Your task to perform on an android device: turn on notifications settings in the gmail app Image 0: 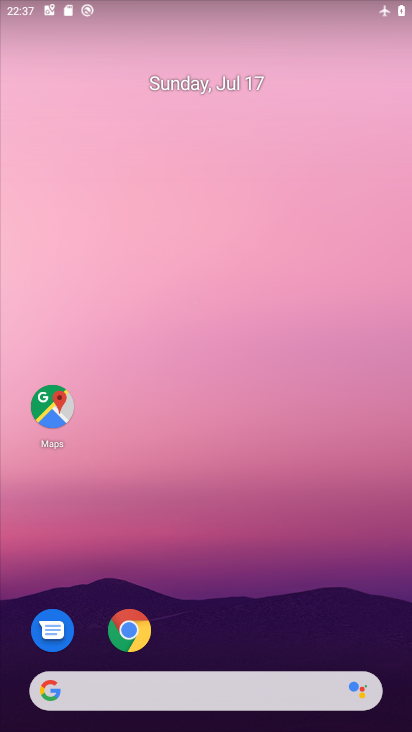
Step 0: drag from (246, 660) to (248, 227)
Your task to perform on an android device: turn on notifications settings in the gmail app Image 1: 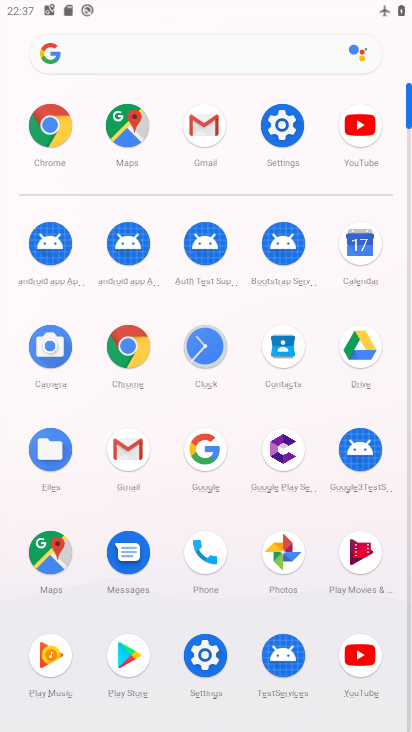
Step 1: click (130, 458)
Your task to perform on an android device: turn on notifications settings in the gmail app Image 2: 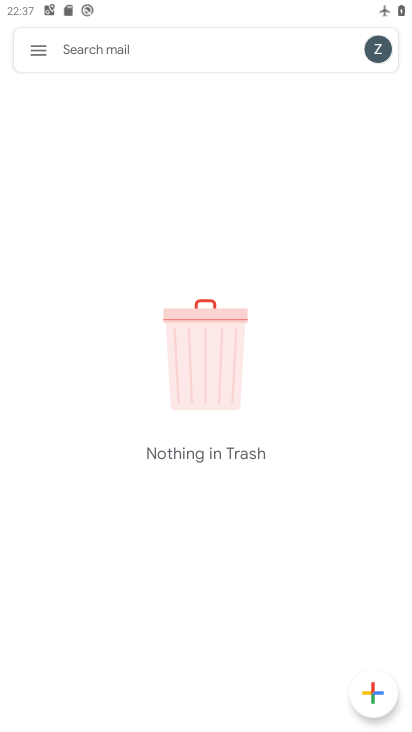
Step 2: click (35, 53)
Your task to perform on an android device: turn on notifications settings in the gmail app Image 3: 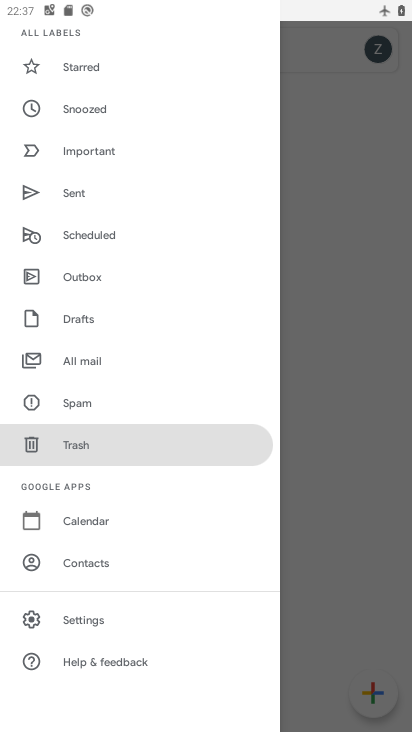
Step 3: click (83, 623)
Your task to perform on an android device: turn on notifications settings in the gmail app Image 4: 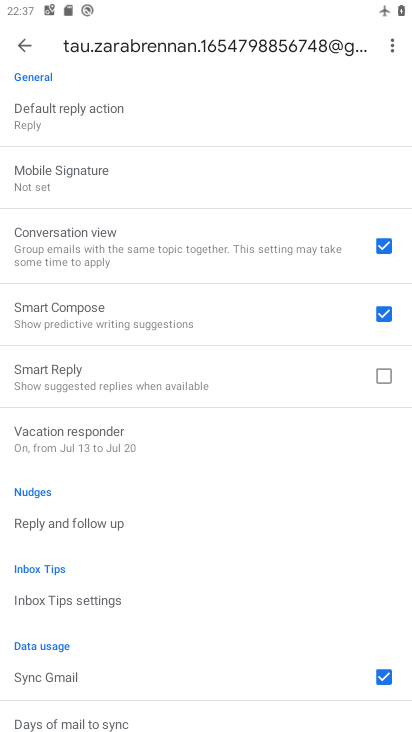
Step 4: click (26, 51)
Your task to perform on an android device: turn on notifications settings in the gmail app Image 5: 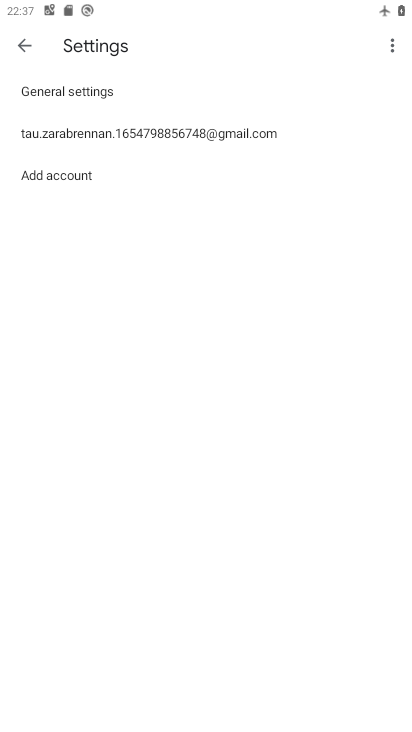
Step 5: click (113, 94)
Your task to perform on an android device: turn on notifications settings in the gmail app Image 6: 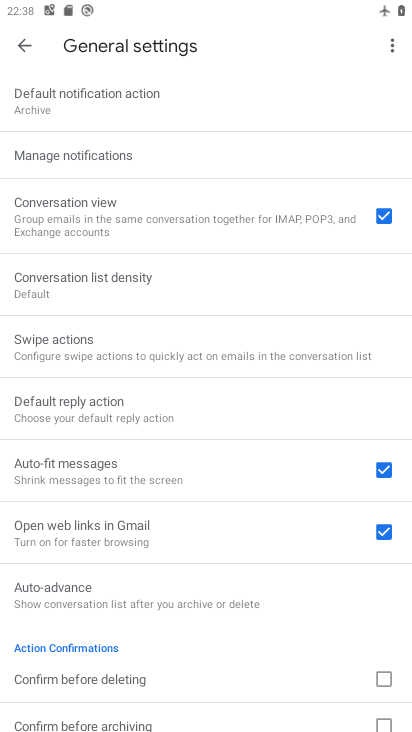
Step 6: click (88, 163)
Your task to perform on an android device: turn on notifications settings in the gmail app Image 7: 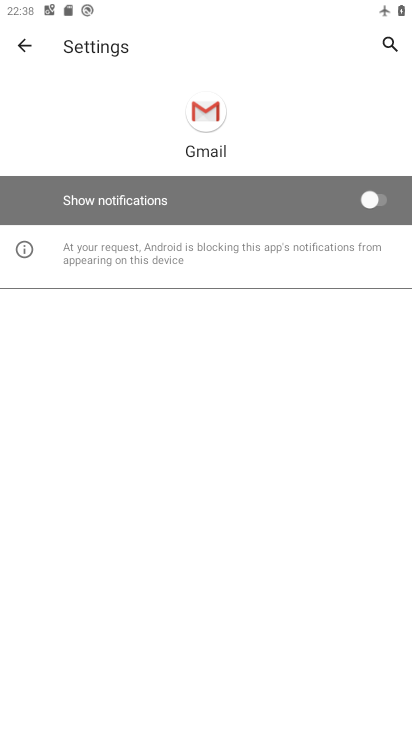
Step 7: click (338, 213)
Your task to perform on an android device: turn on notifications settings in the gmail app Image 8: 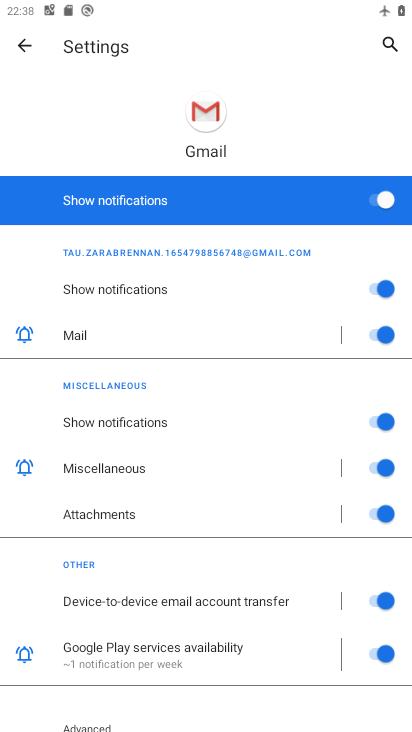
Step 8: task complete